Your task to perform on an android device: Clear the shopping cart on walmart.com. Add "sony triple a" to the cart on walmart.com Image 0: 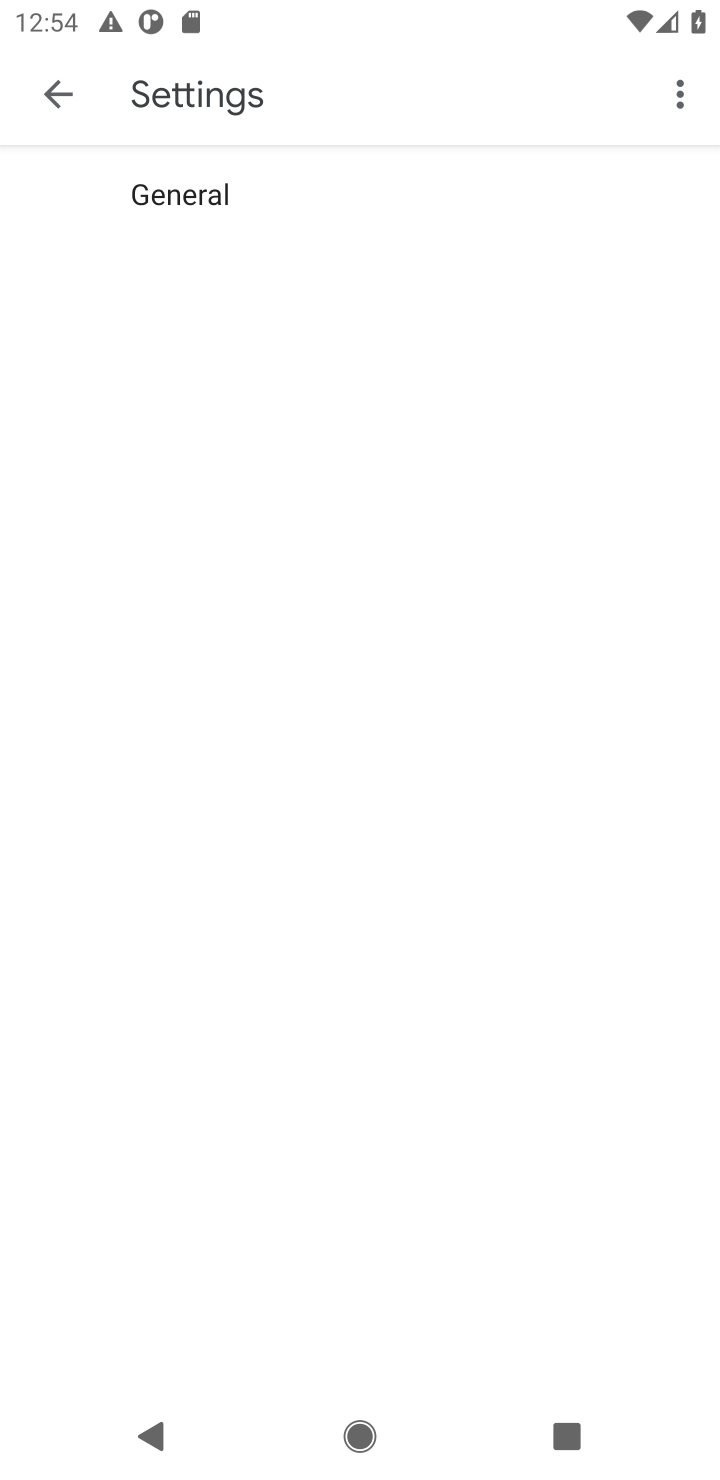
Step 0: press home button
Your task to perform on an android device: Clear the shopping cart on walmart.com. Add "sony triple a" to the cart on walmart.com Image 1: 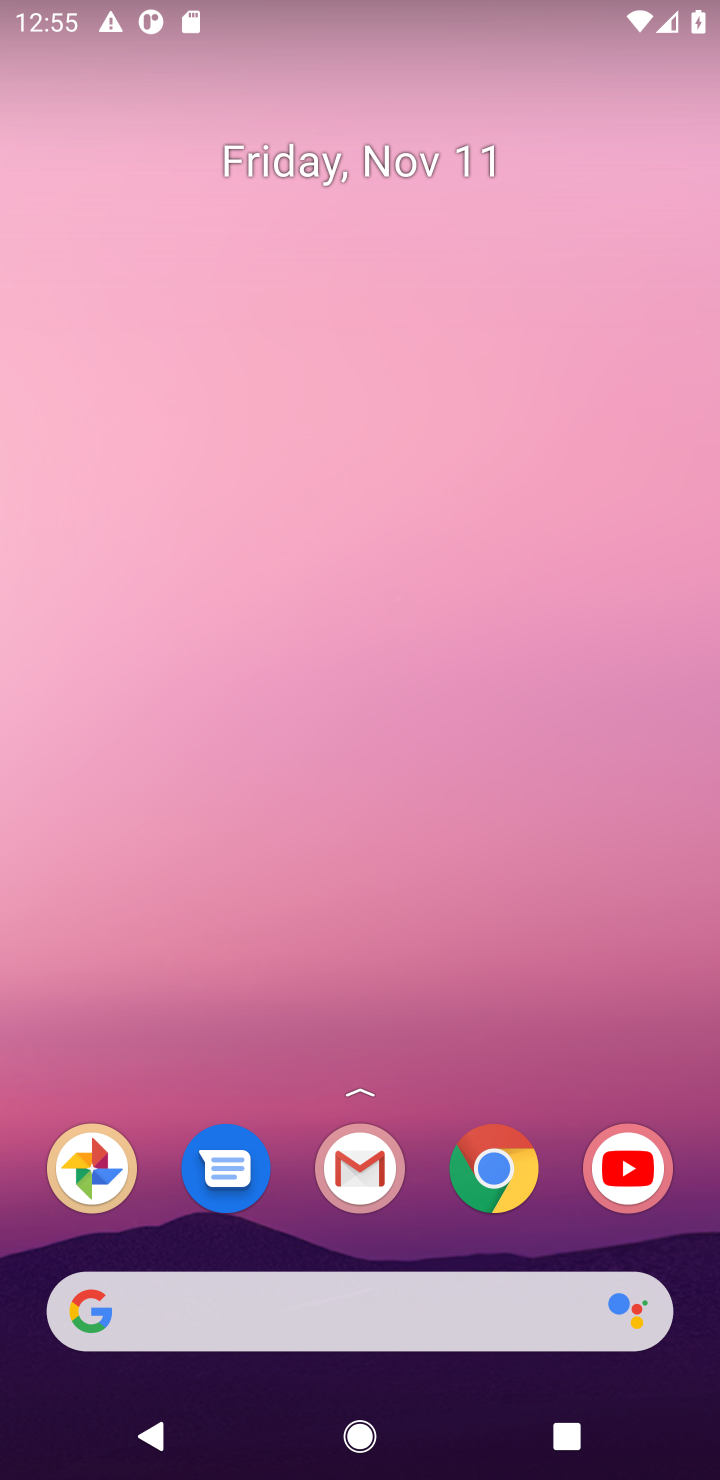
Step 1: click (518, 1164)
Your task to perform on an android device: Clear the shopping cart on walmart.com. Add "sony triple a" to the cart on walmart.com Image 2: 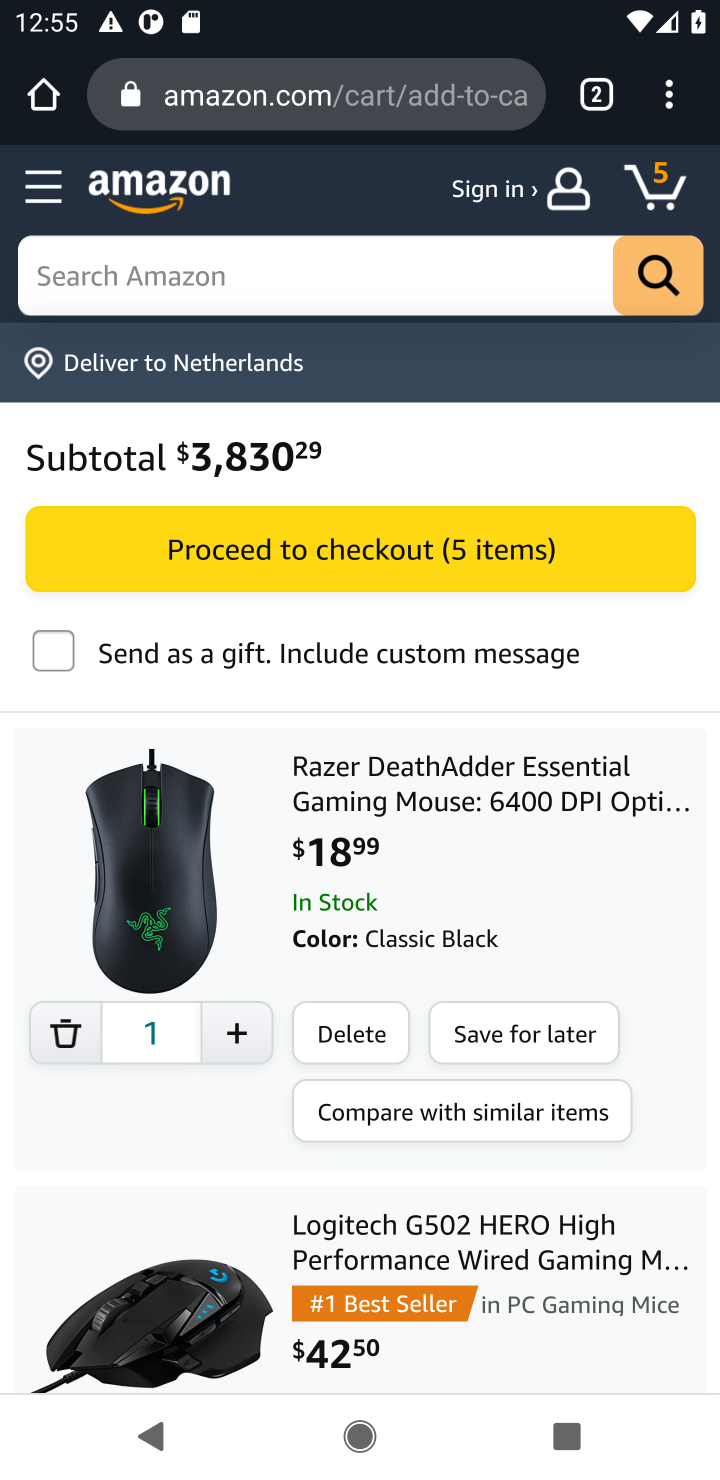
Step 2: click (324, 104)
Your task to perform on an android device: Clear the shopping cart on walmart.com. Add "sony triple a" to the cart on walmart.com Image 3: 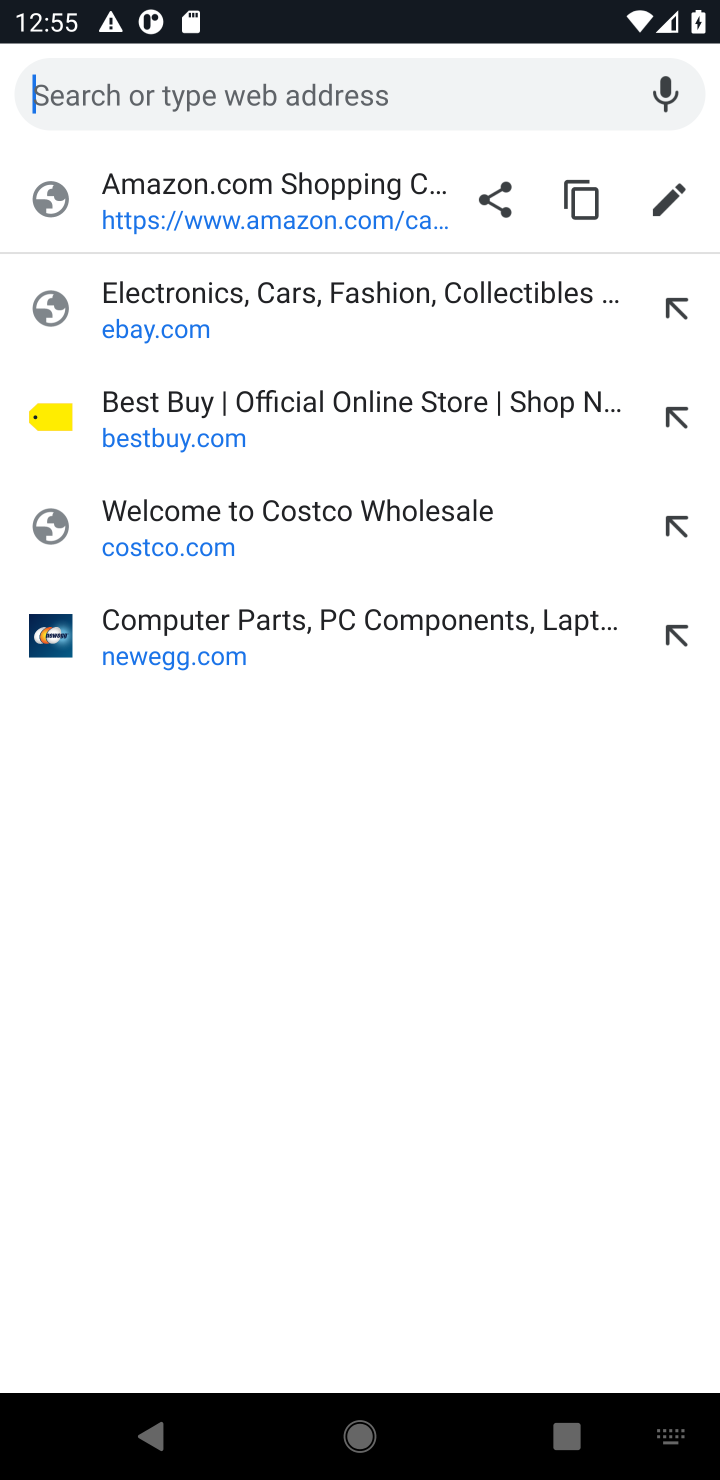
Step 3: click (85, 74)
Your task to perform on an android device: Clear the shopping cart on walmart.com. Add "sony triple a" to the cart on walmart.com Image 4: 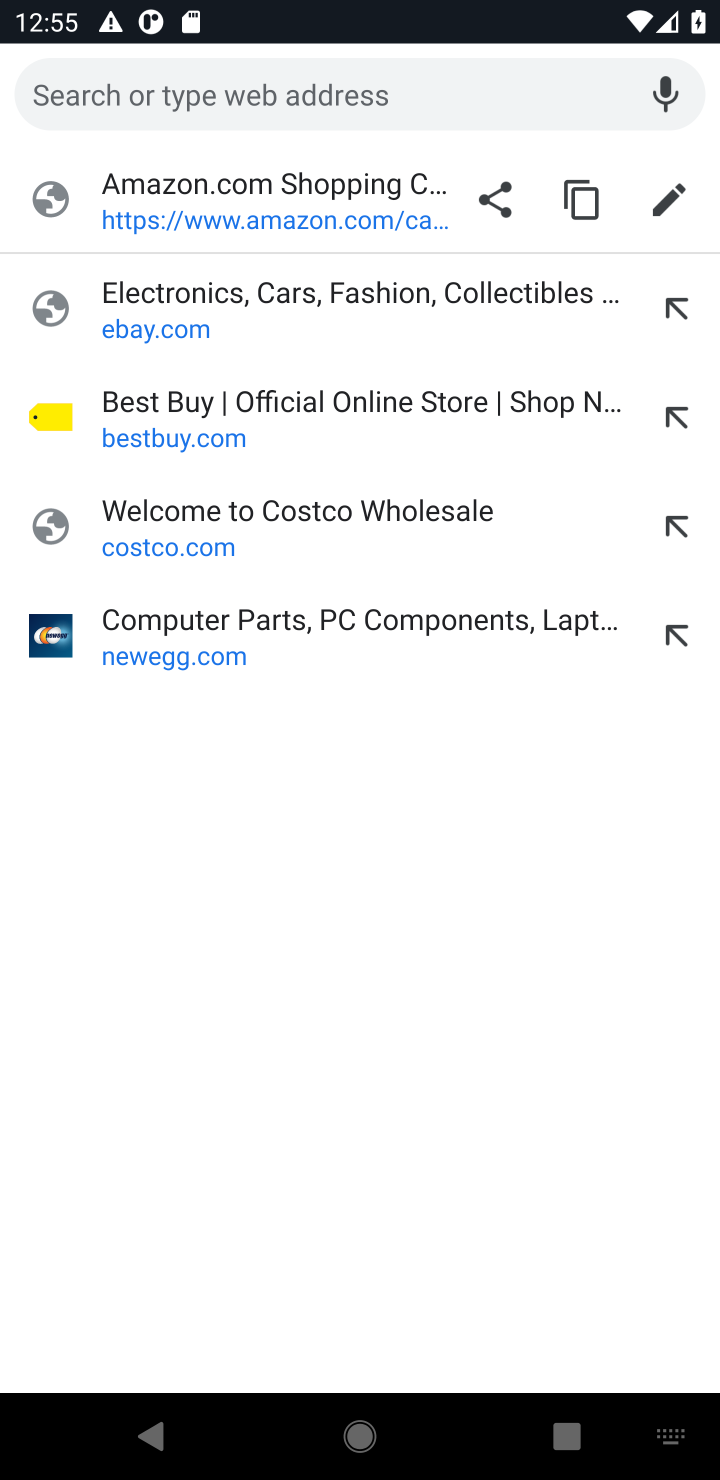
Step 4: type "walmart.com"
Your task to perform on an android device: Clear the shopping cart on walmart.com. Add "sony triple a" to the cart on walmart.com Image 5: 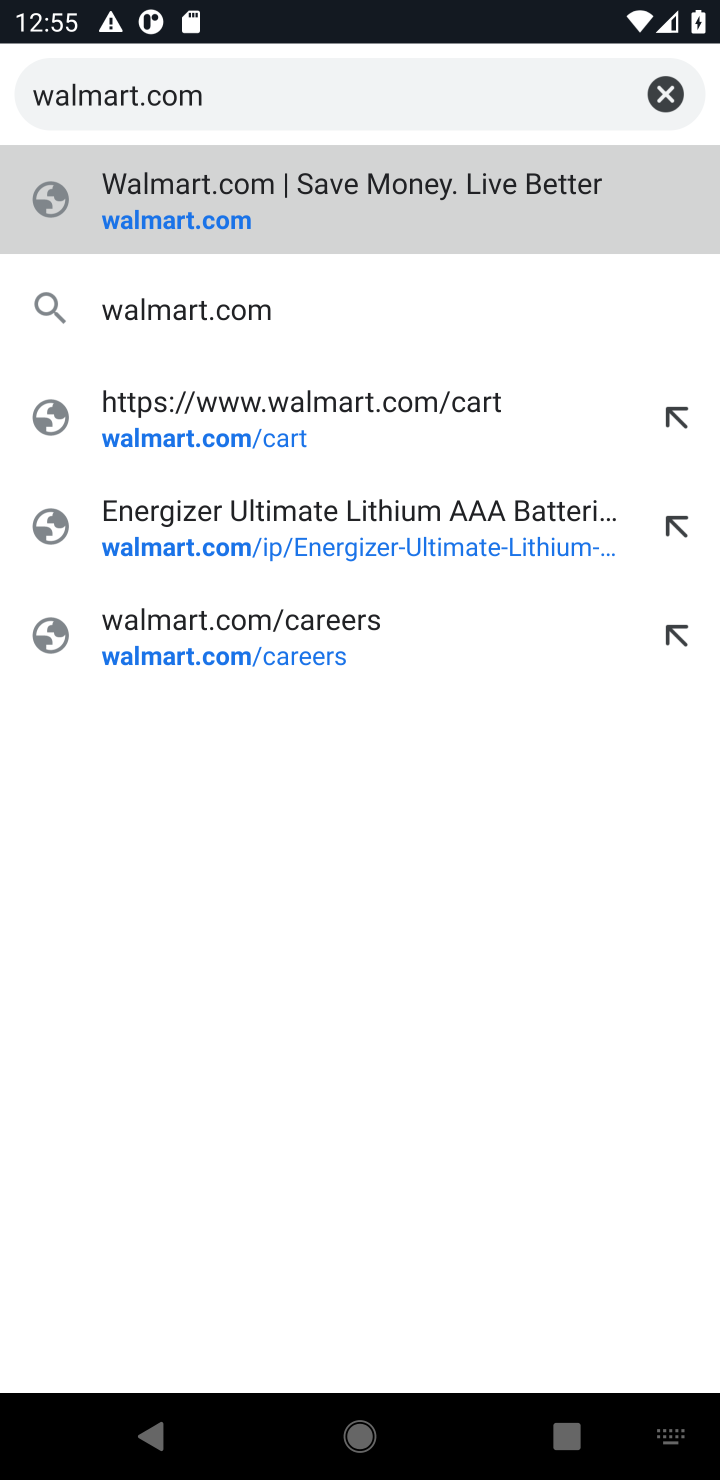
Step 5: click (188, 216)
Your task to perform on an android device: Clear the shopping cart on walmart.com. Add "sony triple a" to the cart on walmart.com Image 6: 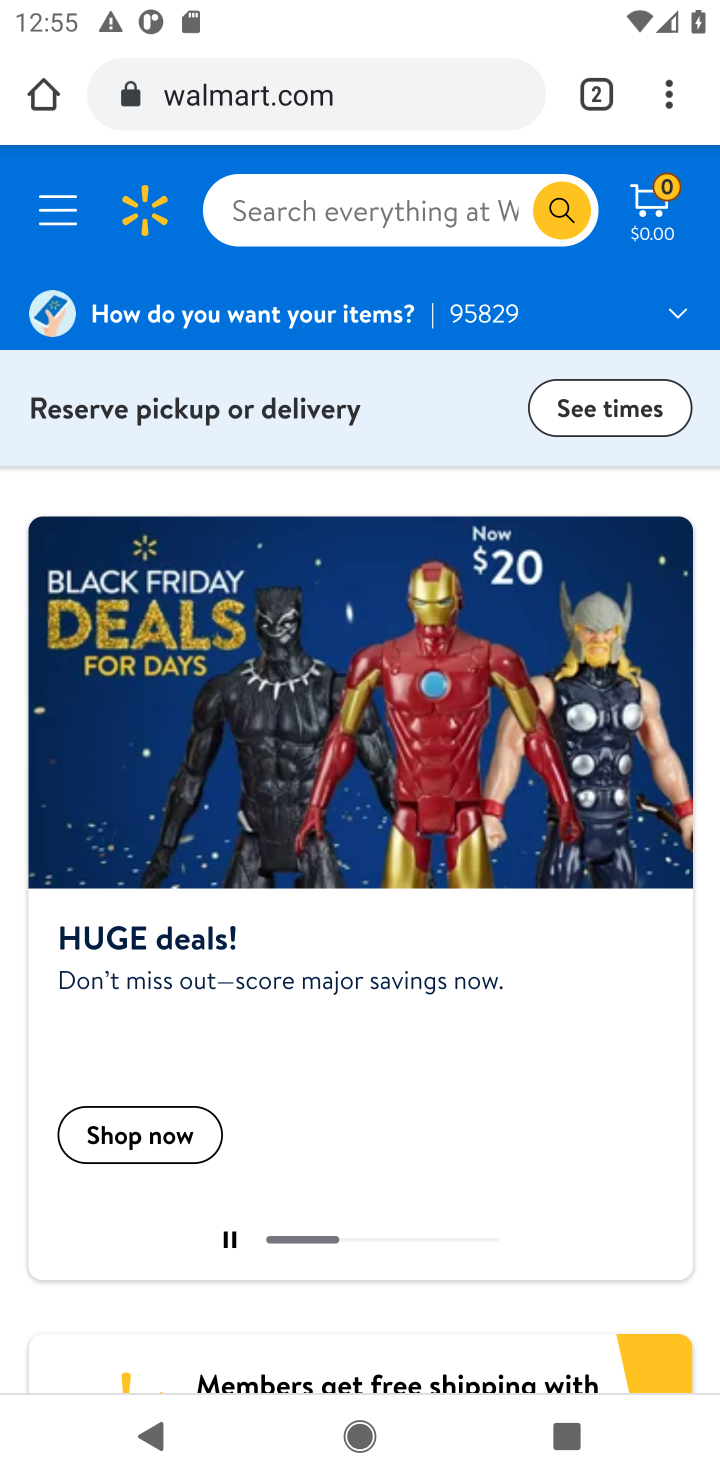
Step 6: click (664, 210)
Your task to perform on an android device: Clear the shopping cart on walmart.com. Add "sony triple a" to the cart on walmart.com Image 7: 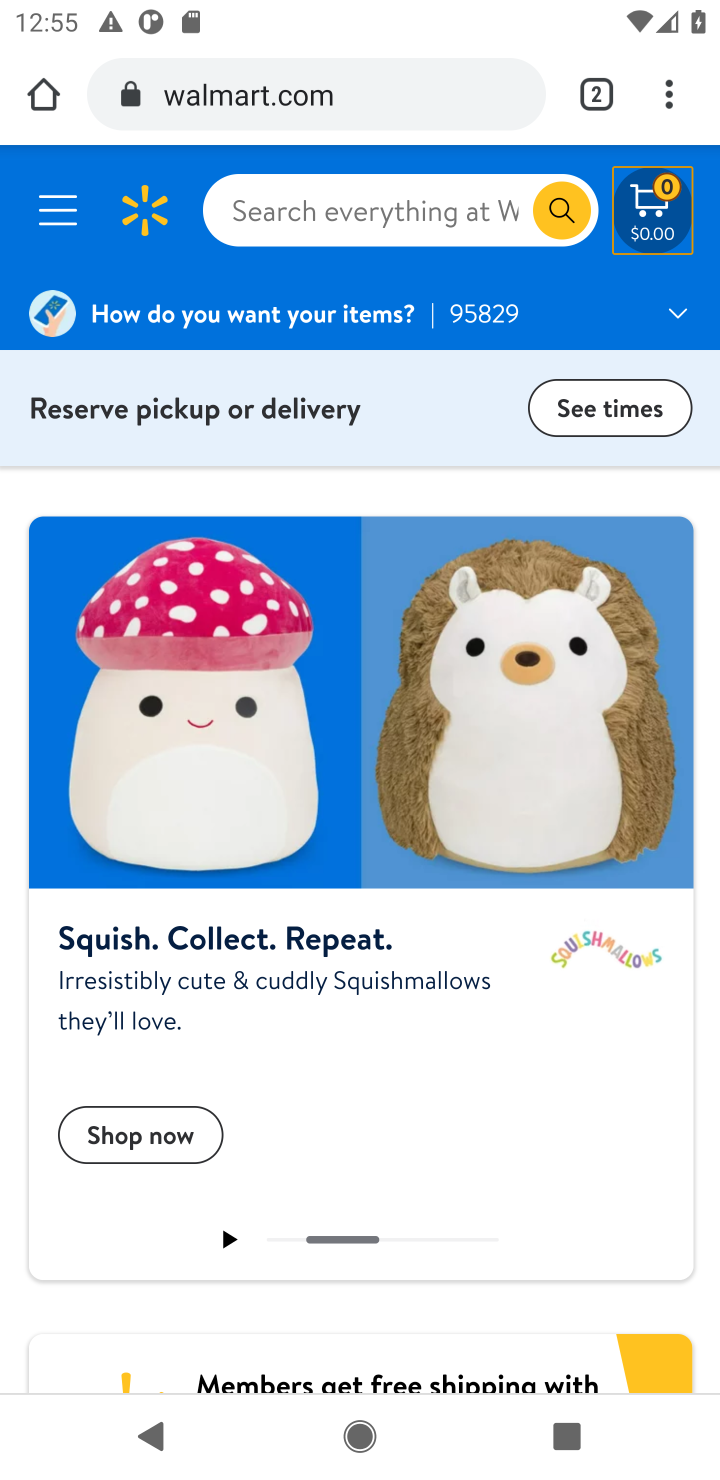
Step 7: click (664, 210)
Your task to perform on an android device: Clear the shopping cart on walmart.com. Add "sony triple a" to the cart on walmart.com Image 8: 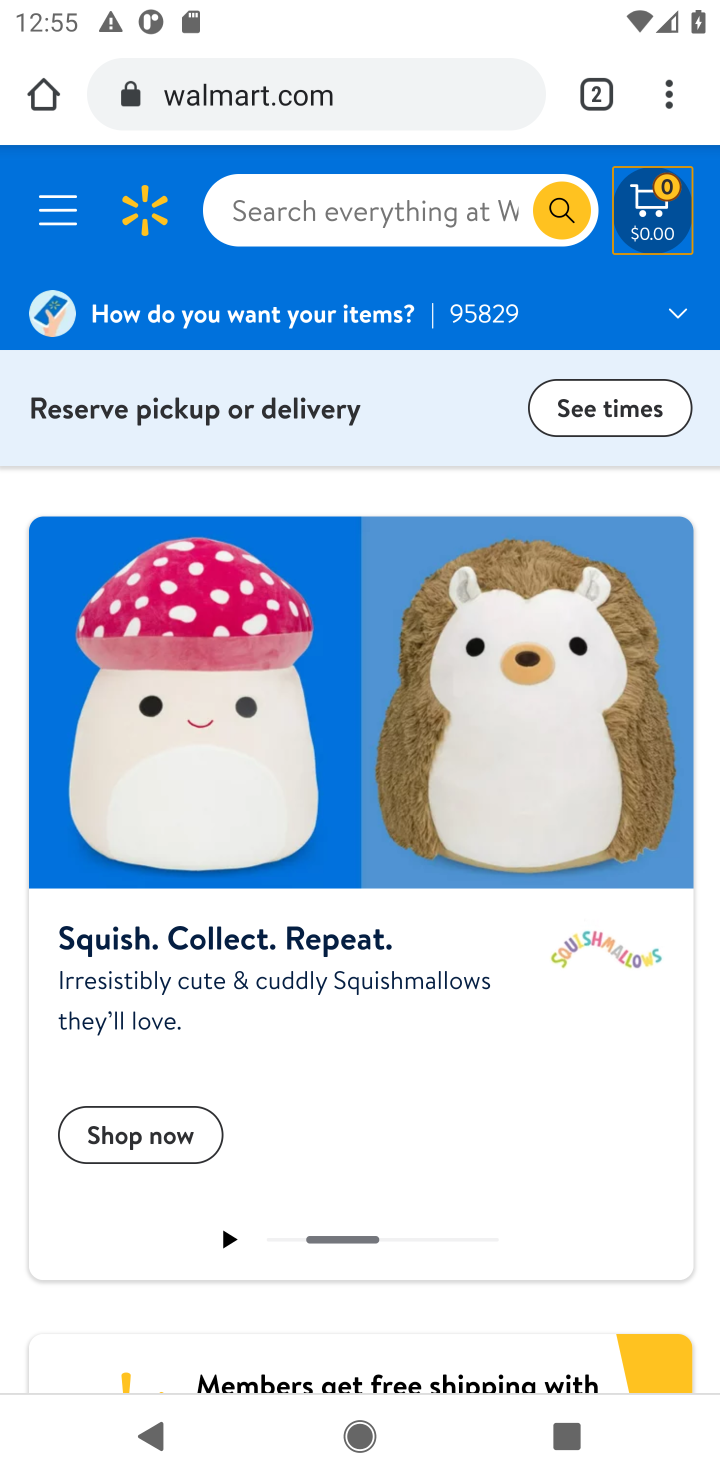
Step 8: click (659, 238)
Your task to perform on an android device: Clear the shopping cart on walmart.com. Add "sony triple a" to the cart on walmart.com Image 9: 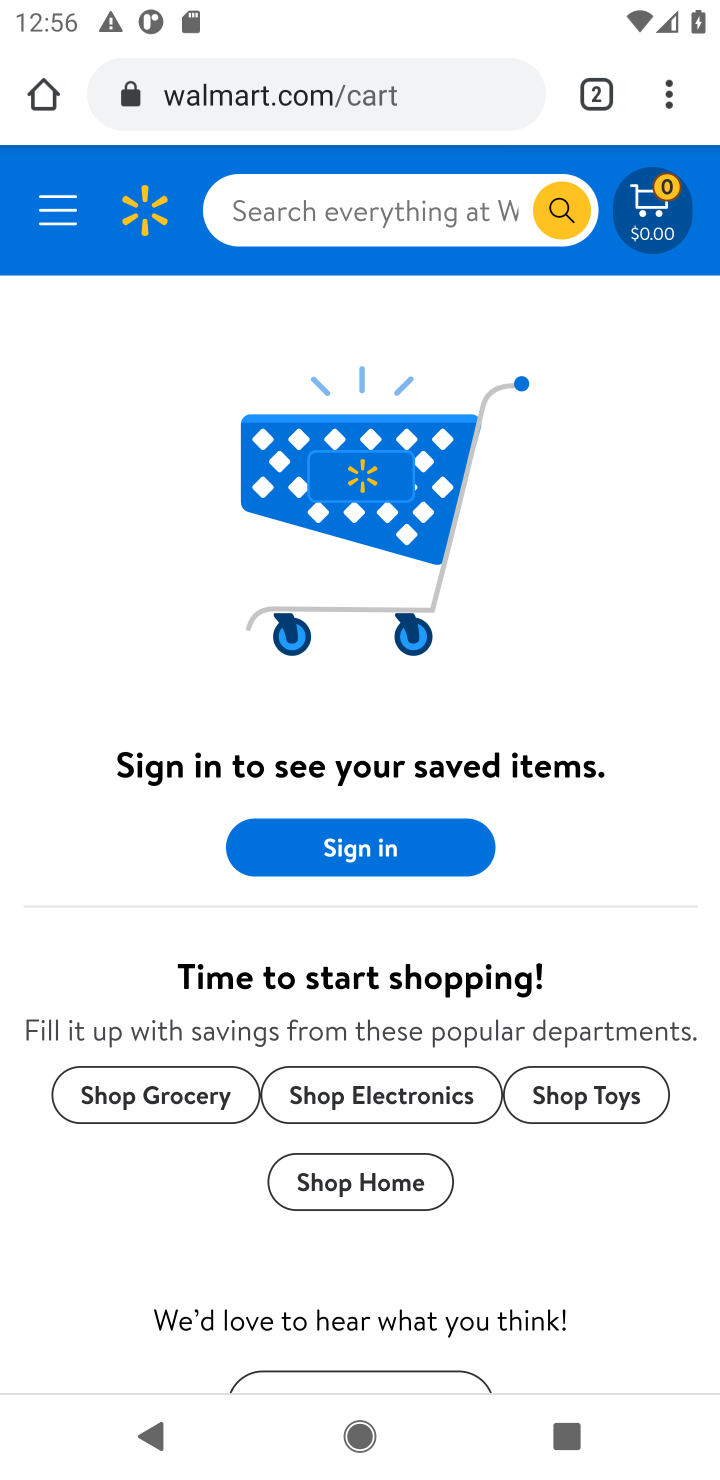
Step 9: click (263, 217)
Your task to perform on an android device: Clear the shopping cart on walmart.com. Add "sony triple a" to the cart on walmart.com Image 10: 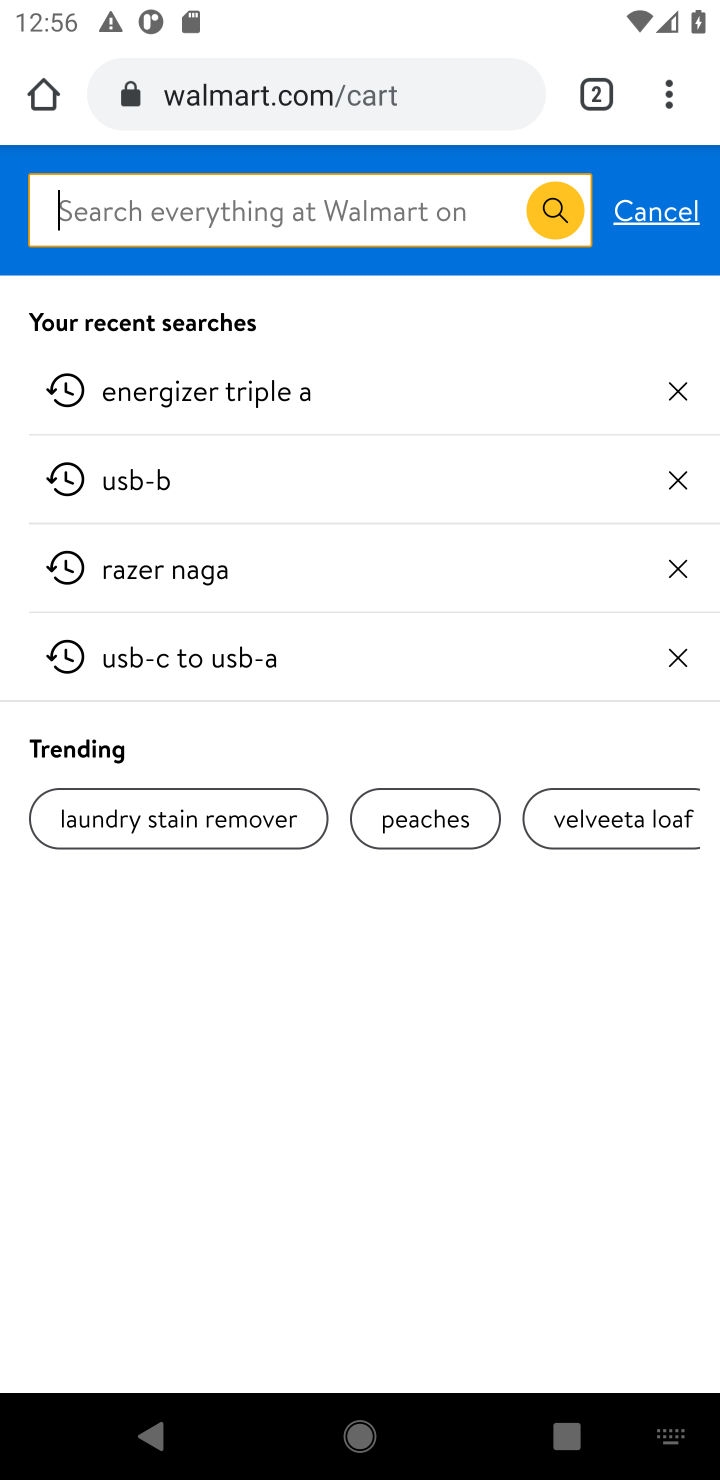
Step 10: type "sony triple a"
Your task to perform on an android device: Clear the shopping cart on walmart.com. Add "sony triple a" to the cart on walmart.com Image 11: 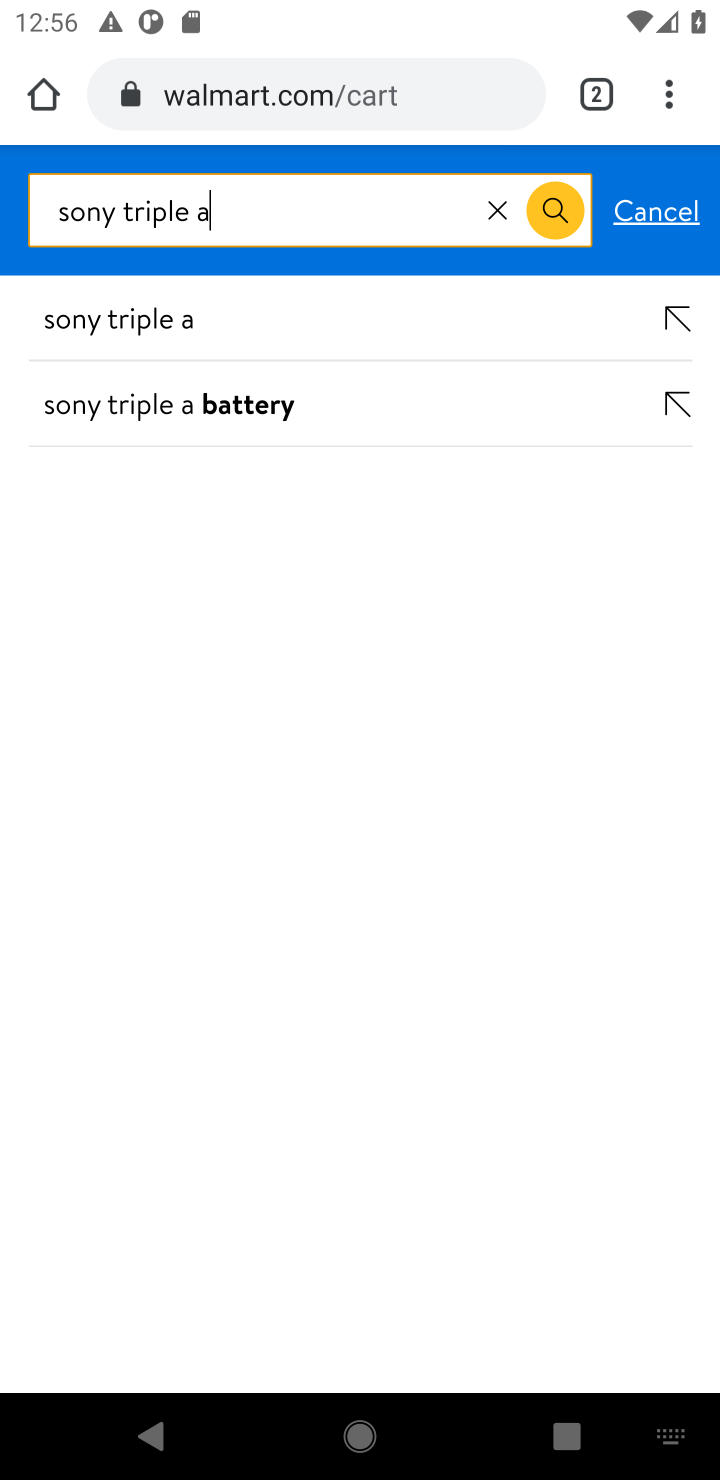
Step 11: click (124, 324)
Your task to perform on an android device: Clear the shopping cart on walmart.com. Add "sony triple a" to the cart on walmart.com Image 12: 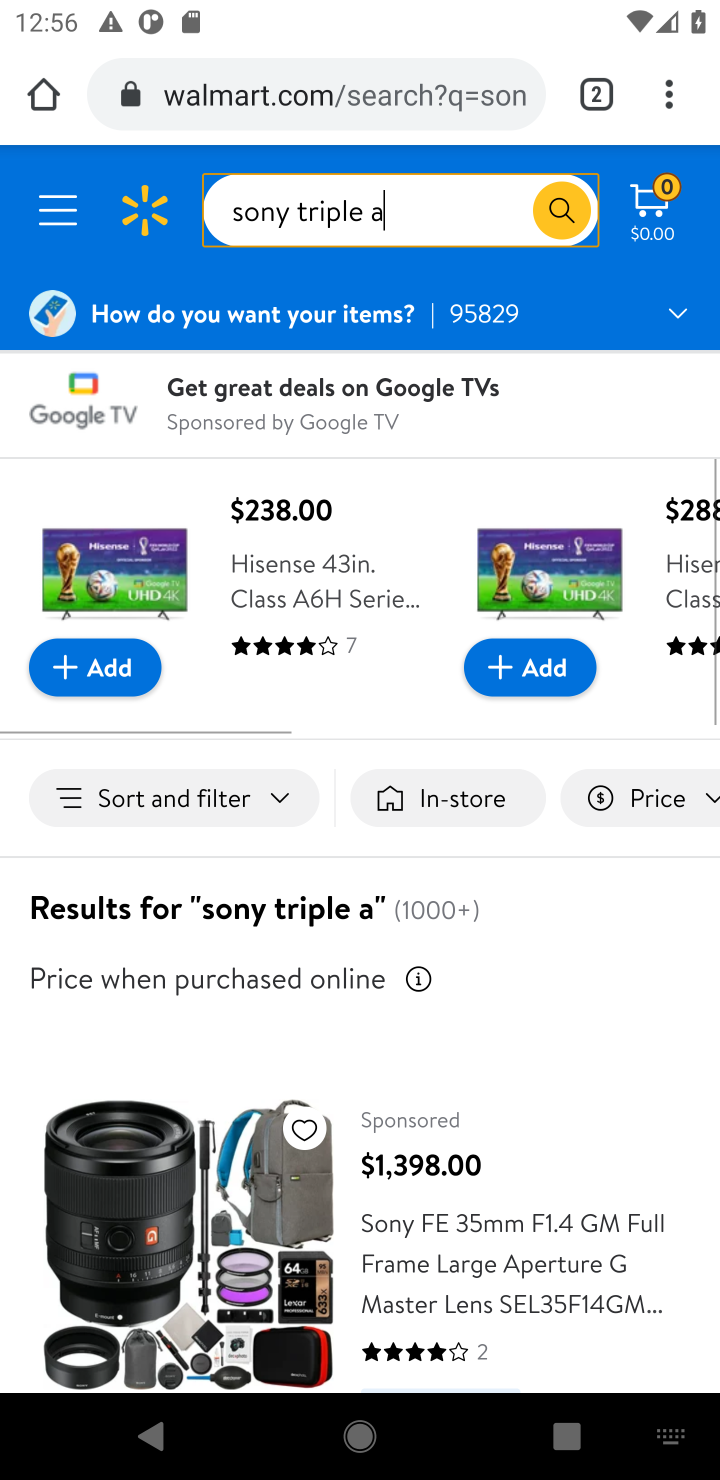
Step 12: drag from (245, 1196) to (289, 611)
Your task to perform on an android device: Clear the shopping cart on walmart.com. Add "sony triple a" to the cart on walmart.com Image 13: 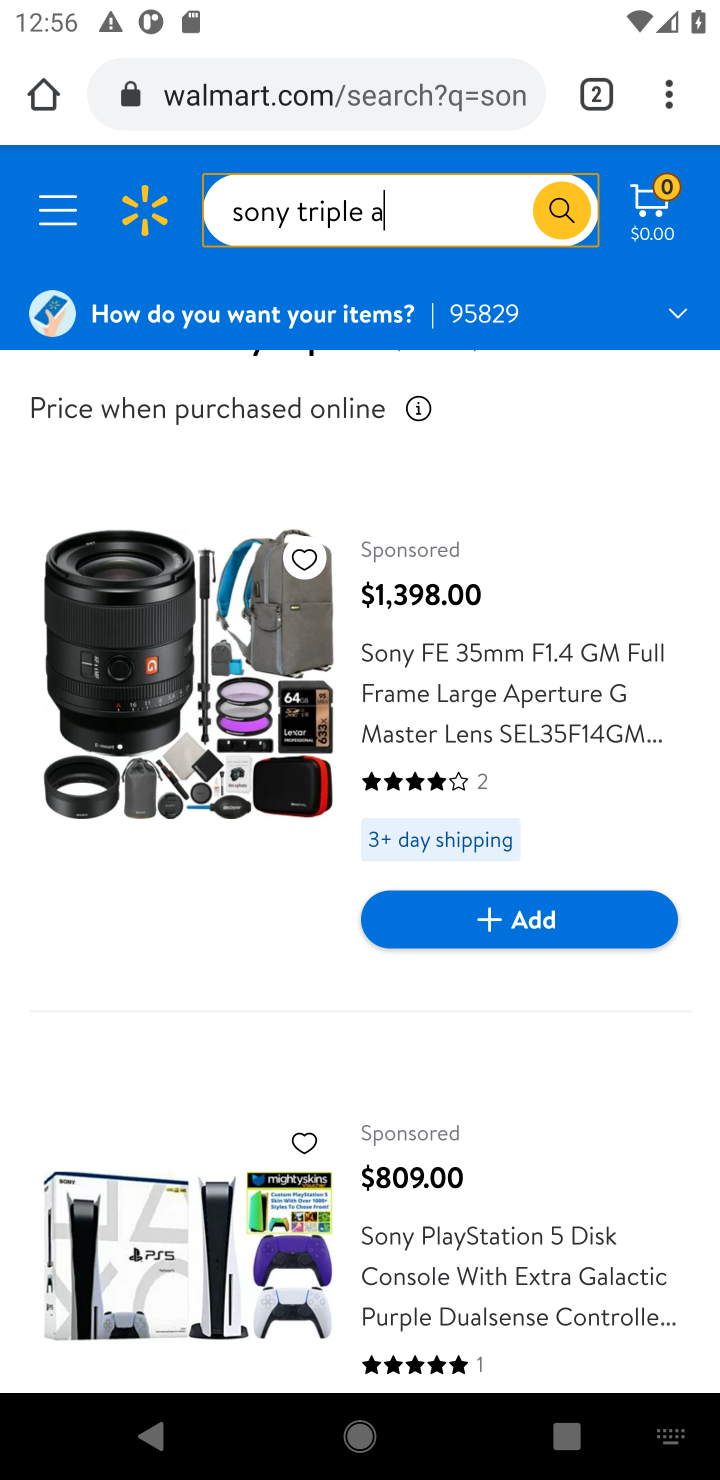
Step 13: drag from (255, 1060) to (217, 459)
Your task to perform on an android device: Clear the shopping cart on walmart.com. Add "sony triple a" to the cart on walmart.com Image 14: 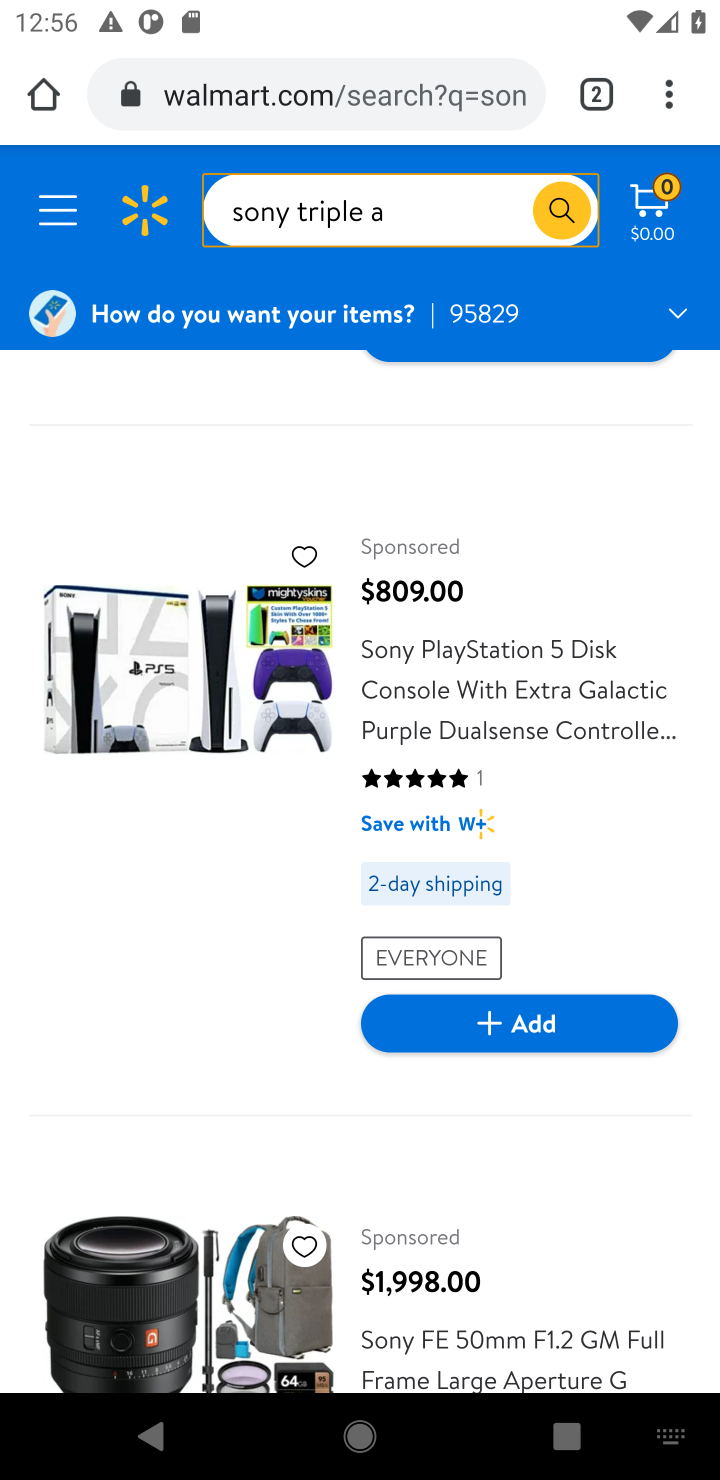
Step 14: drag from (216, 944) to (186, 576)
Your task to perform on an android device: Clear the shopping cart on walmart.com. Add "sony triple a" to the cart on walmart.com Image 15: 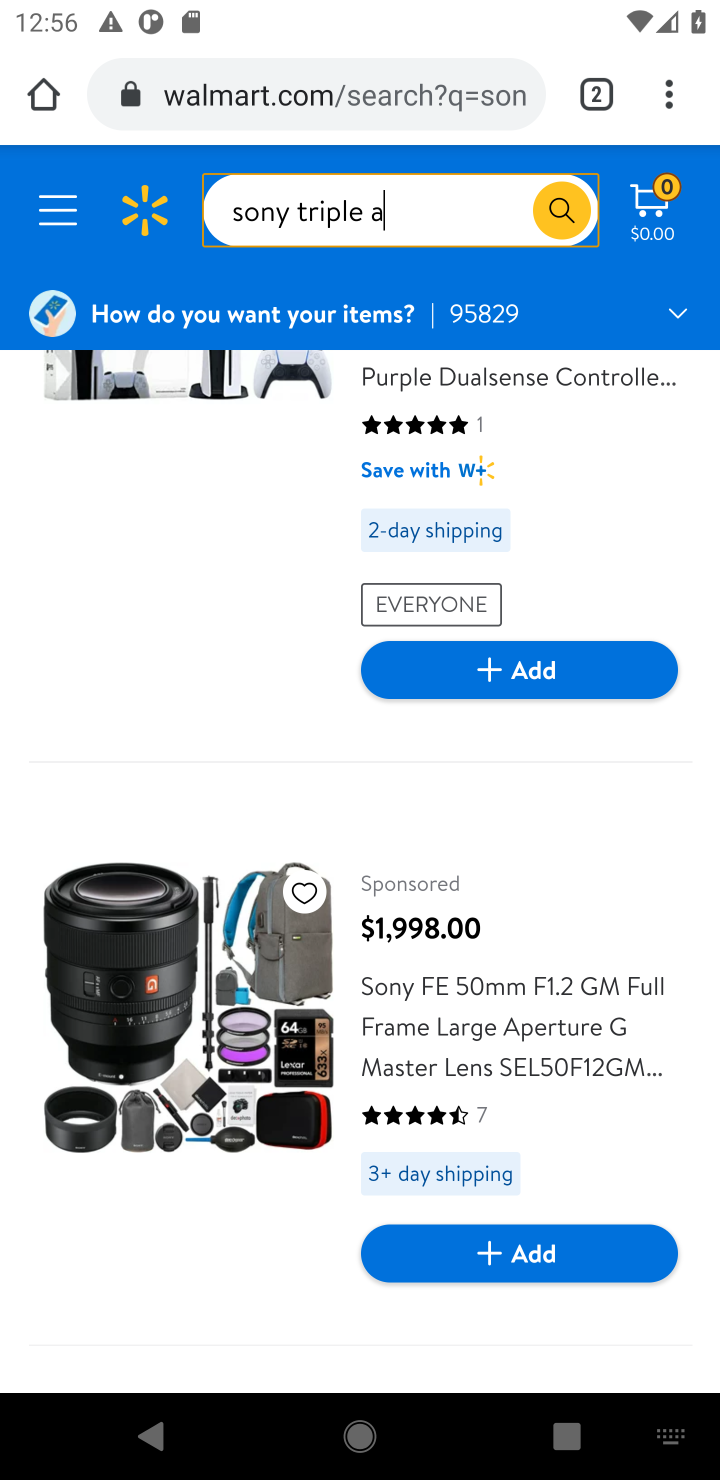
Step 15: drag from (219, 1171) to (228, 599)
Your task to perform on an android device: Clear the shopping cart on walmart.com. Add "sony triple a" to the cart on walmart.com Image 16: 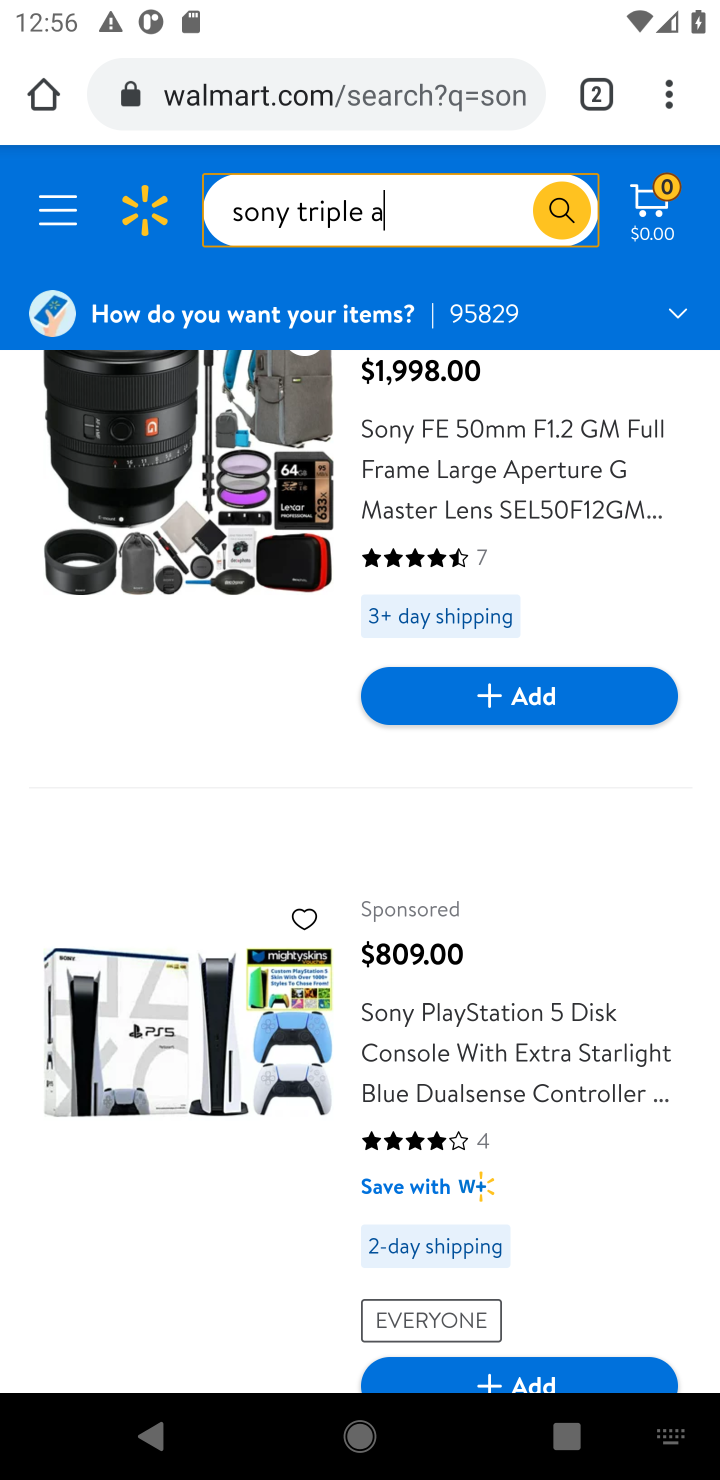
Step 16: drag from (221, 1122) to (170, 516)
Your task to perform on an android device: Clear the shopping cart on walmart.com. Add "sony triple a" to the cart on walmart.com Image 17: 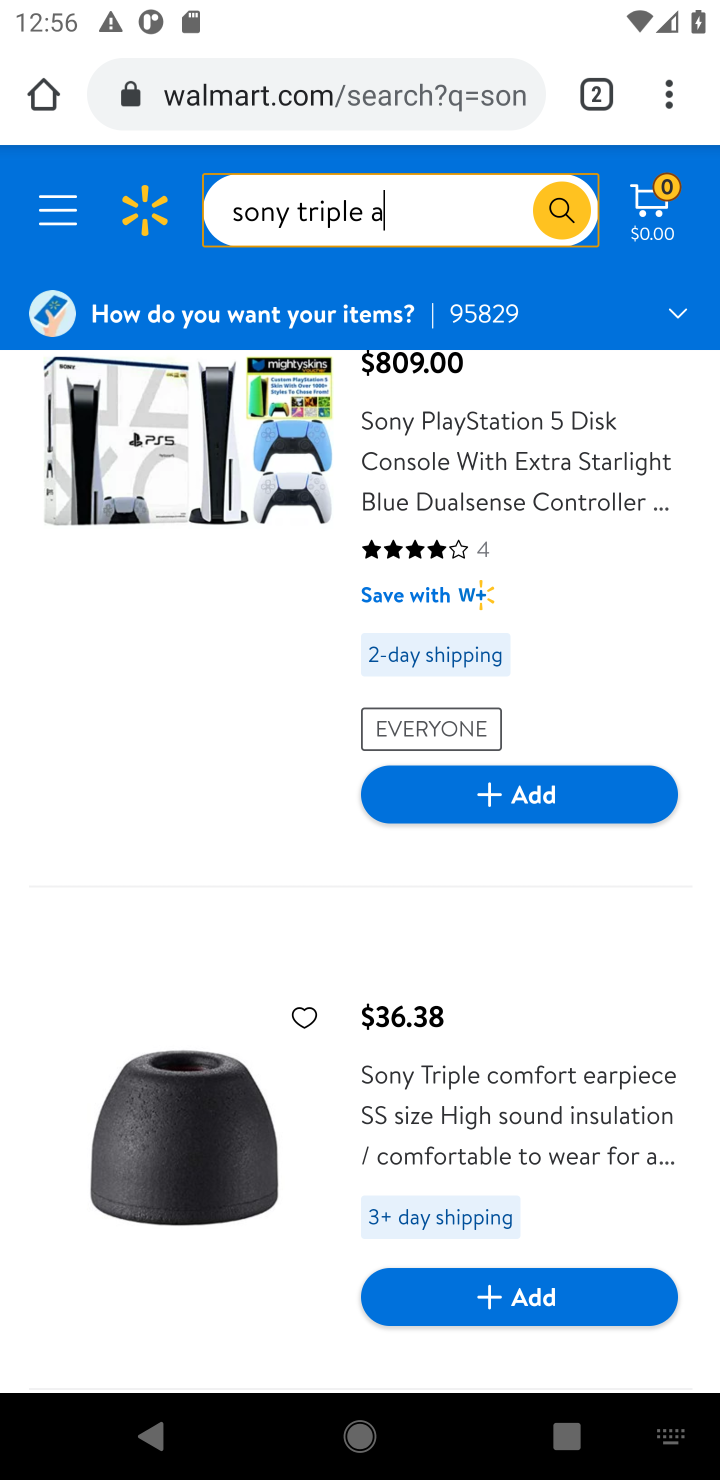
Step 17: drag from (174, 1022) to (166, 756)
Your task to perform on an android device: Clear the shopping cart on walmart.com. Add "sony triple a" to the cart on walmart.com Image 18: 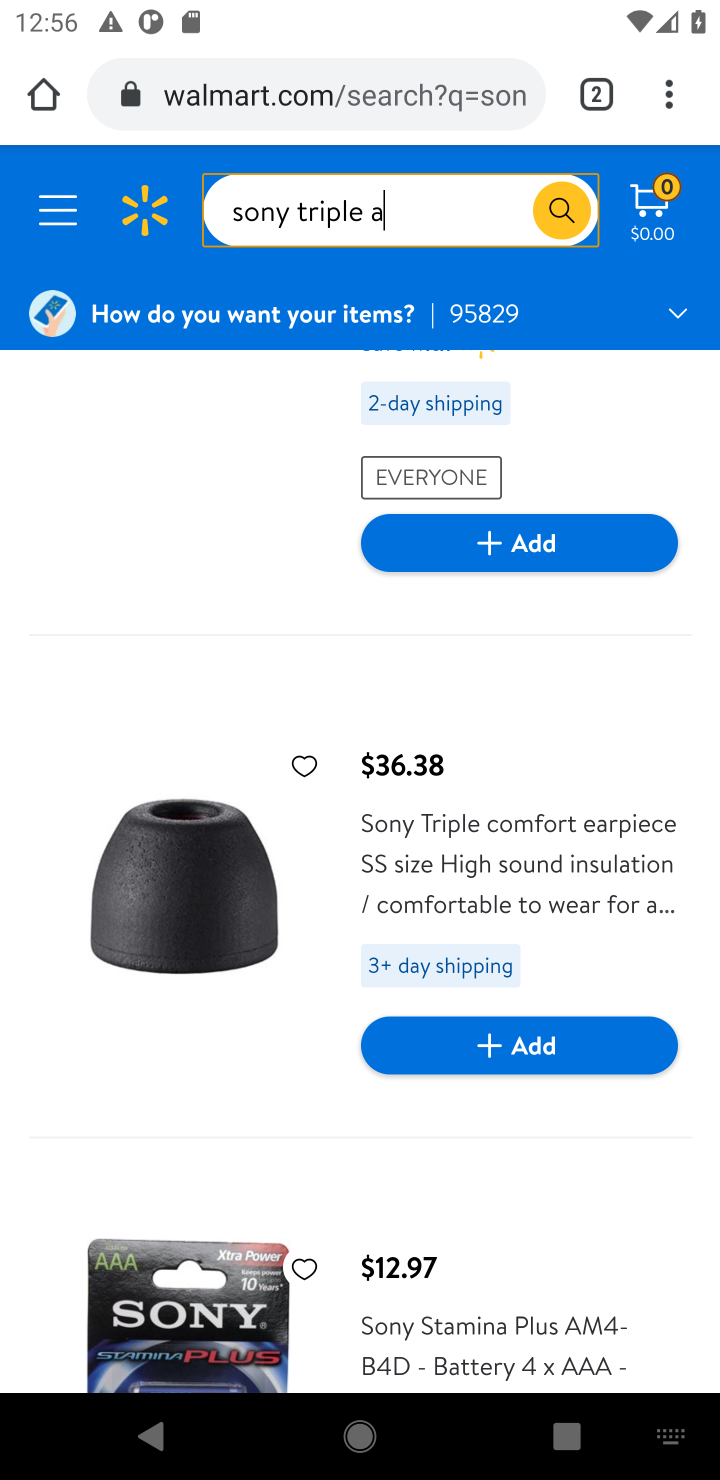
Step 18: drag from (166, 1117) to (163, 621)
Your task to perform on an android device: Clear the shopping cart on walmart.com. Add "sony triple a" to the cart on walmart.com Image 19: 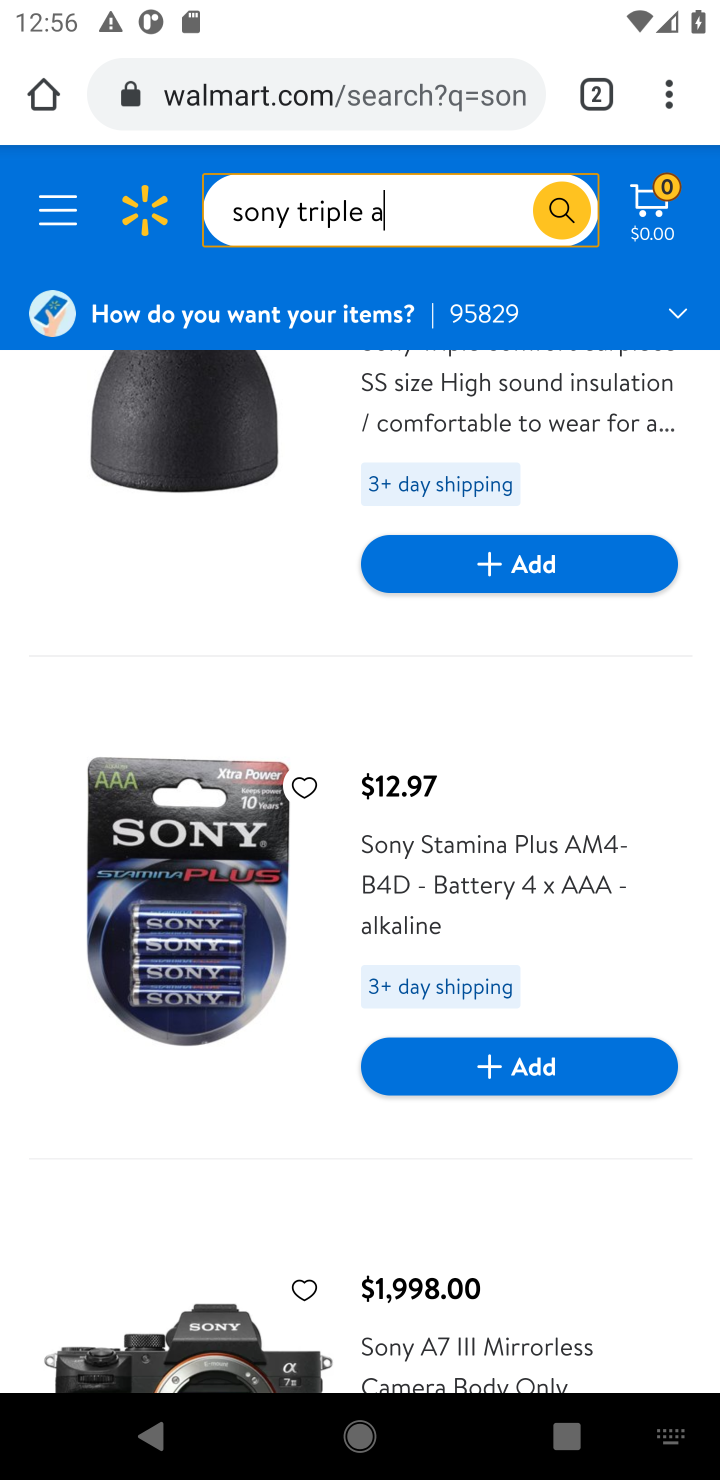
Step 19: drag from (143, 1113) to (180, 847)
Your task to perform on an android device: Clear the shopping cart on walmart.com. Add "sony triple a" to the cart on walmart.com Image 20: 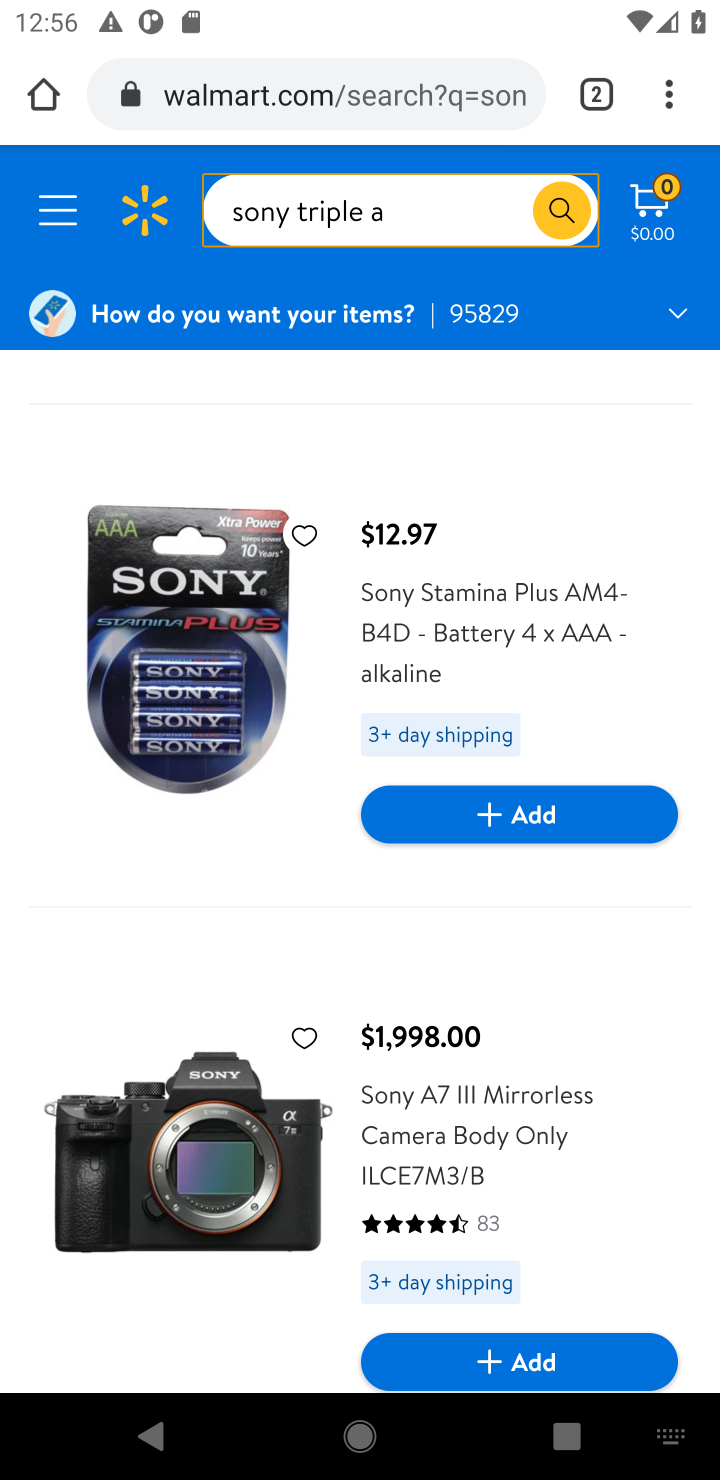
Step 20: drag from (156, 1159) to (169, 762)
Your task to perform on an android device: Clear the shopping cart on walmart.com. Add "sony triple a" to the cart on walmart.com Image 21: 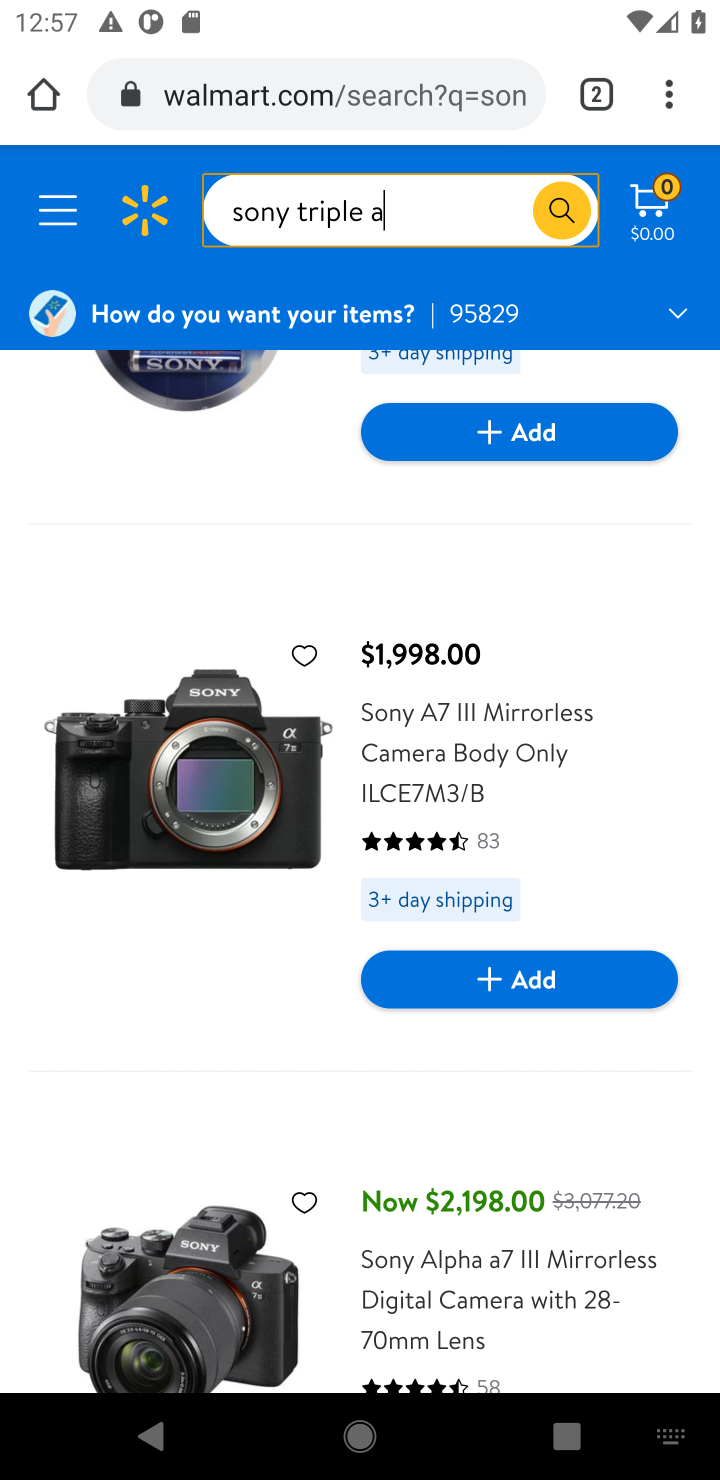
Step 21: drag from (131, 1275) to (131, 782)
Your task to perform on an android device: Clear the shopping cart on walmart.com. Add "sony triple a" to the cart on walmart.com Image 22: 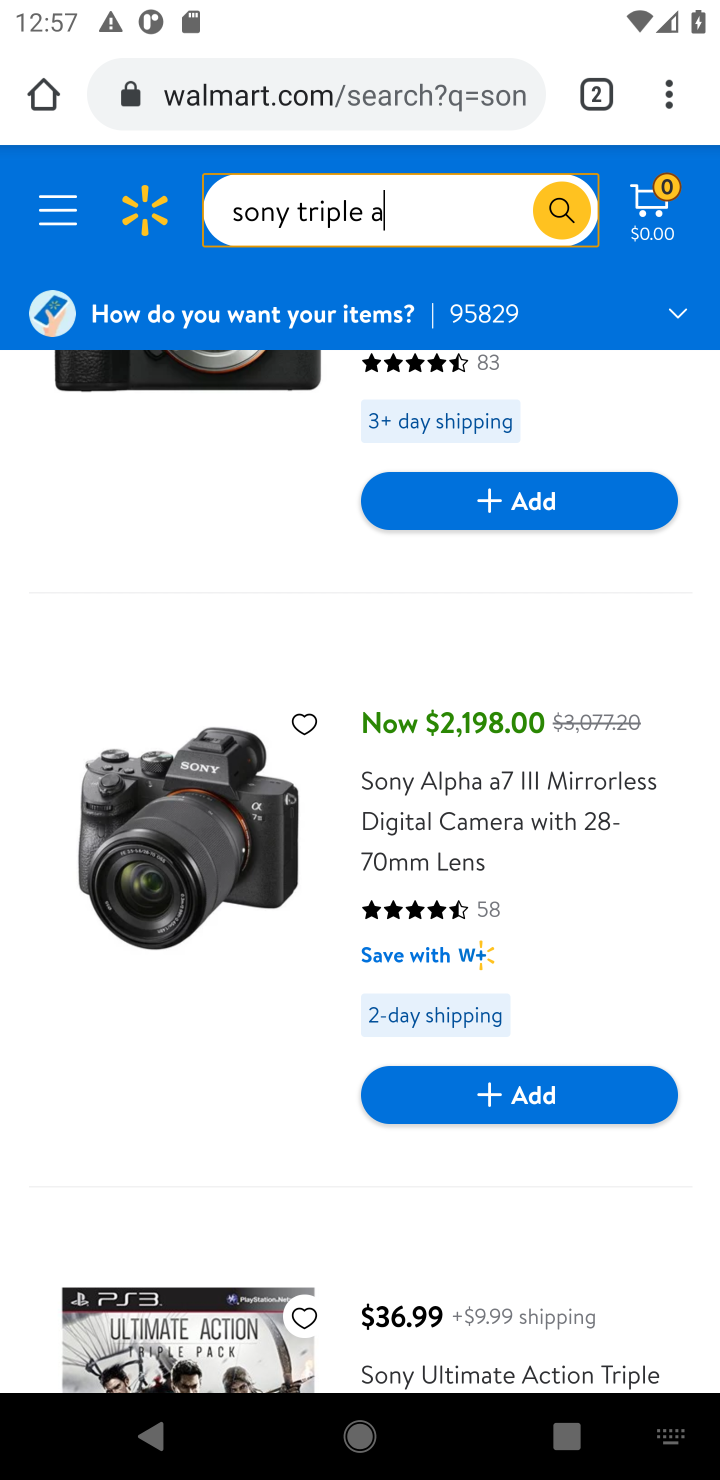
Step 22: drag from (113, 1117) to (174, 728)
Your task to perform on an android device: Clear the shopping cart on walmart.com. Add "sony triple a" to the cart on walmart.com Image 23: 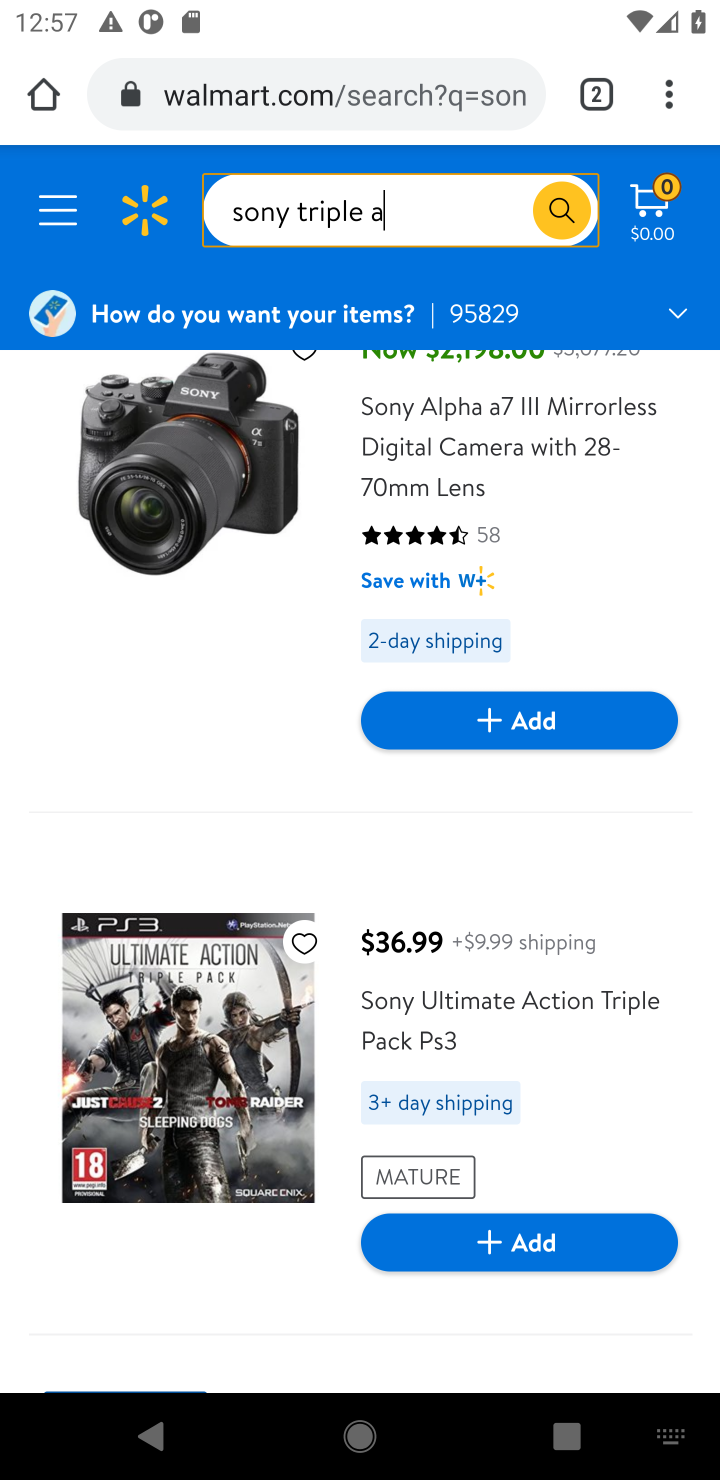
Step 23: drag from (174, 728) to (191, 1294)
Your task to perform on an android device: Clear the shopping cart on walmart.com. Add "sony triple a" to the cart on walmart.com Image 24: 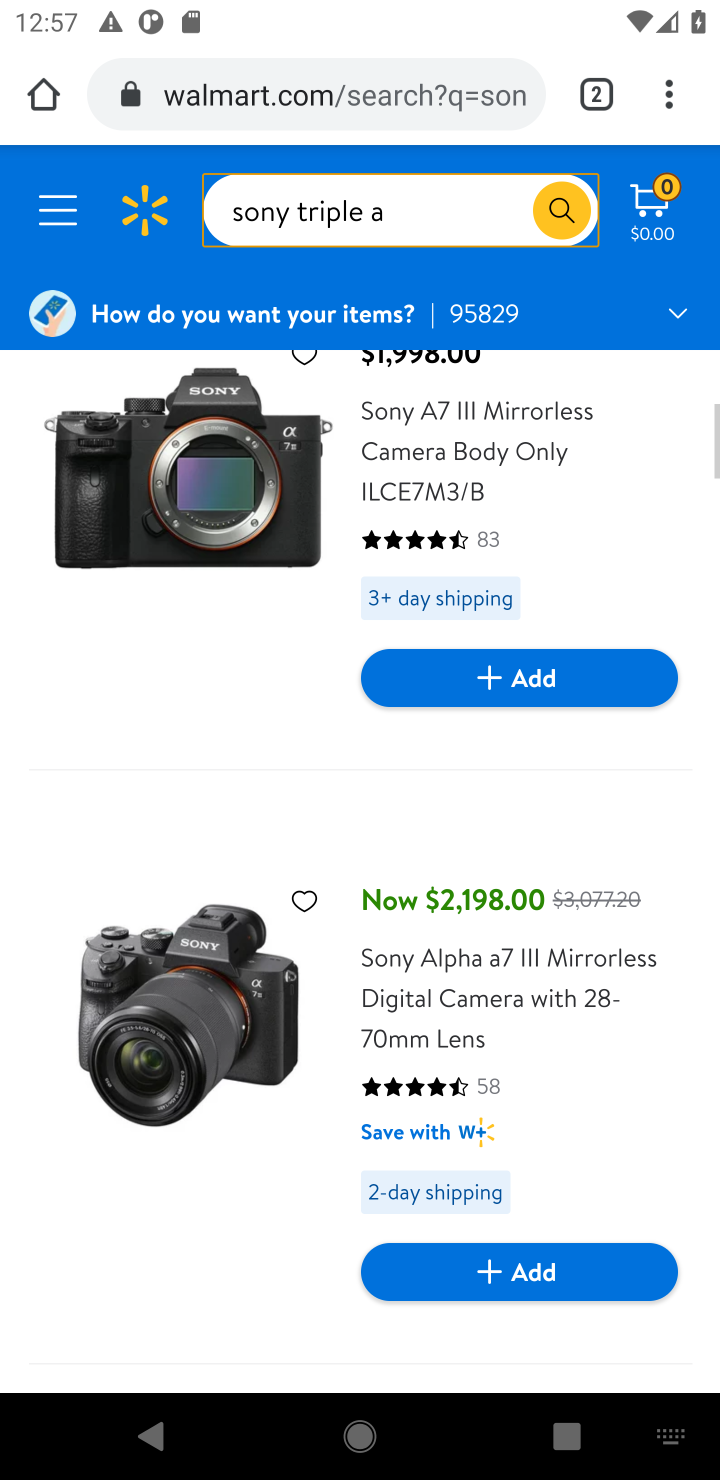
Step 24: drag from (250, 675) to (193, 1114)
Your task to perform on an android device: Clear the shopping cart on walmart.com. Add "sony triple a" to the cart on walmart.com Image 25: 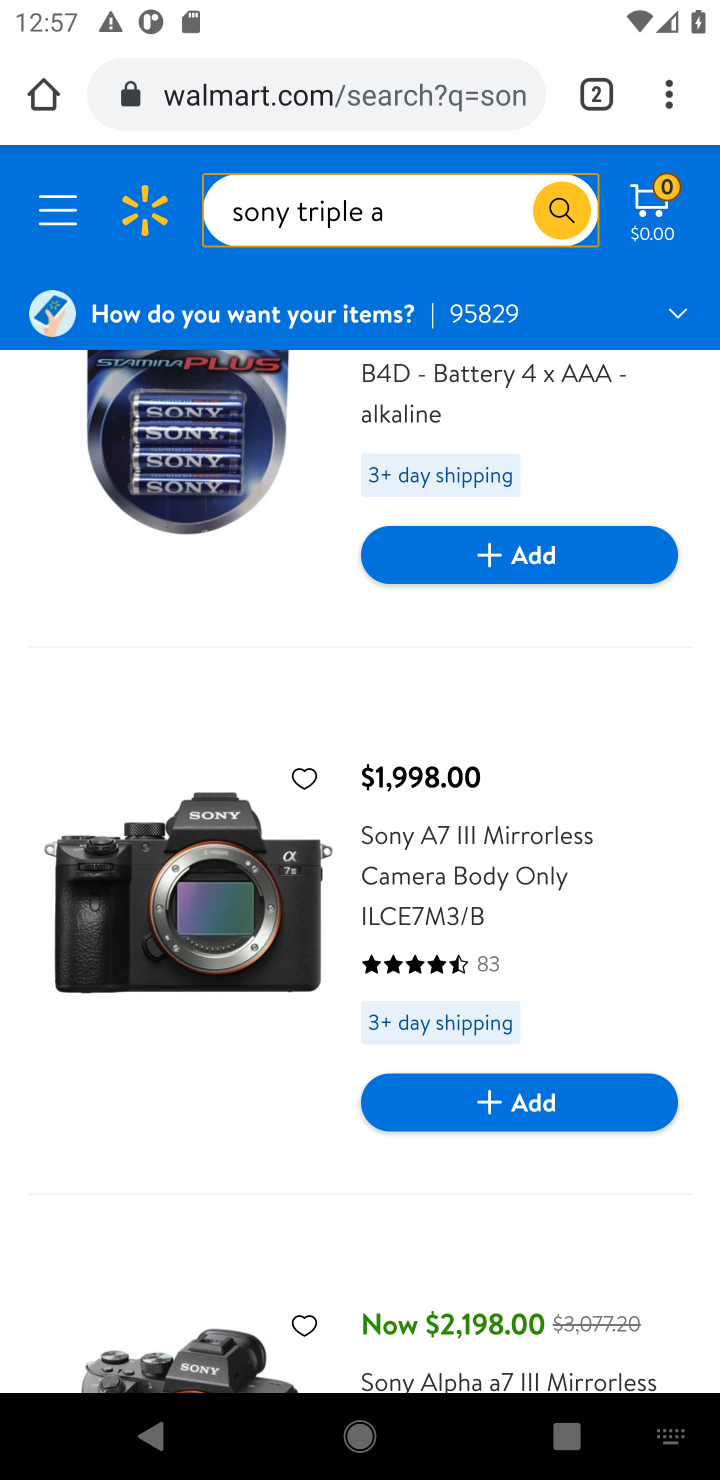
Step 25: click (226, 449)
Your task to perform on an android device: Clear the shopping cart on walmart.com. Add "sony triple a" to the cart on walmart.com Image 26: 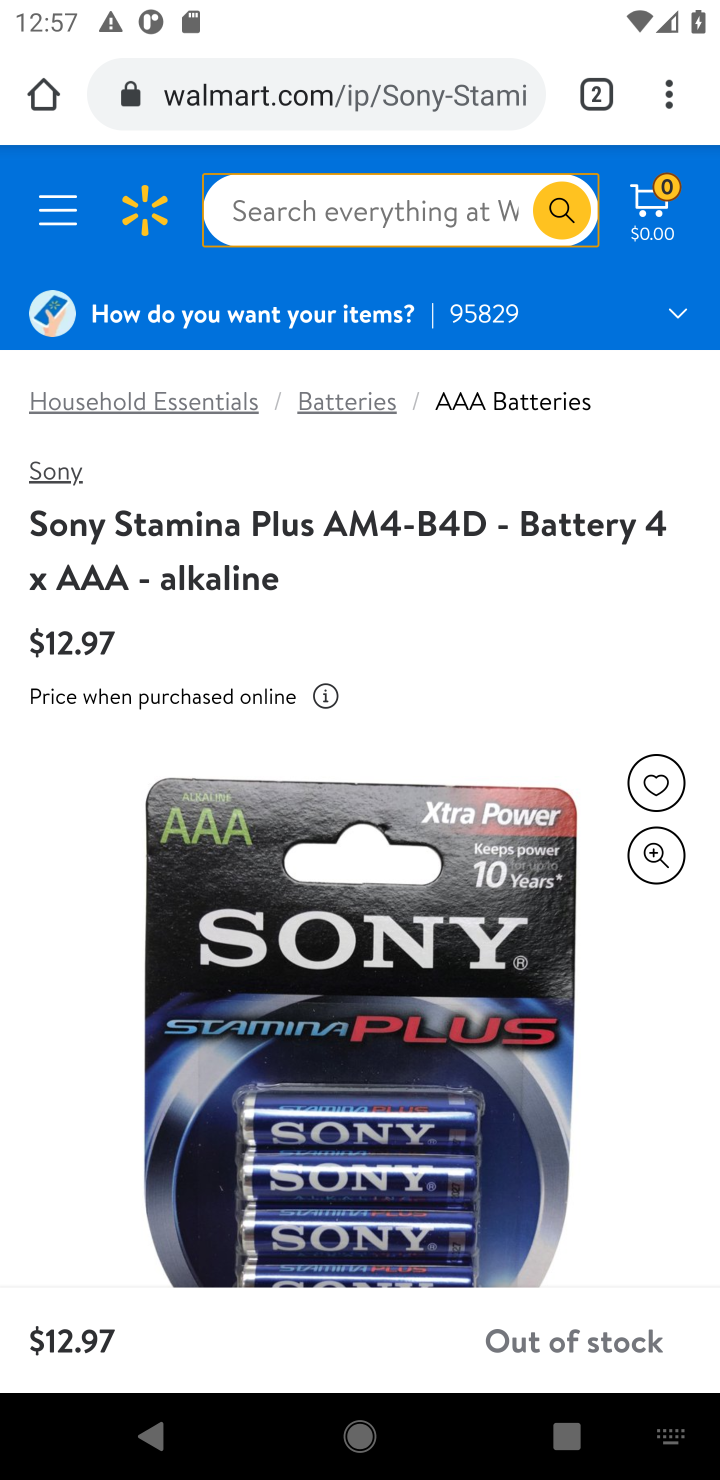
Step 26: task complete